Your task to perform on an android device: Clear the cart on newegg. Add "alienware area 51" to the cart on newegg, then select checkout. Image 0: 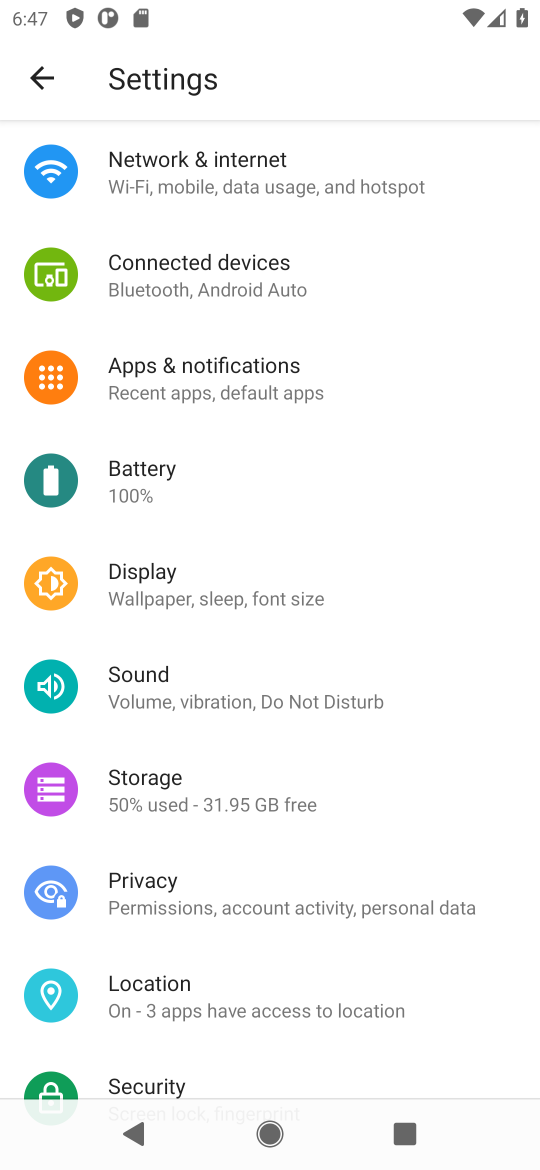
Step 0: press home button
Your task to perform on an android device: Clear the cart on newegg. Add "alienware area 51" to the cart on newegg, then select checkout. Image 1: 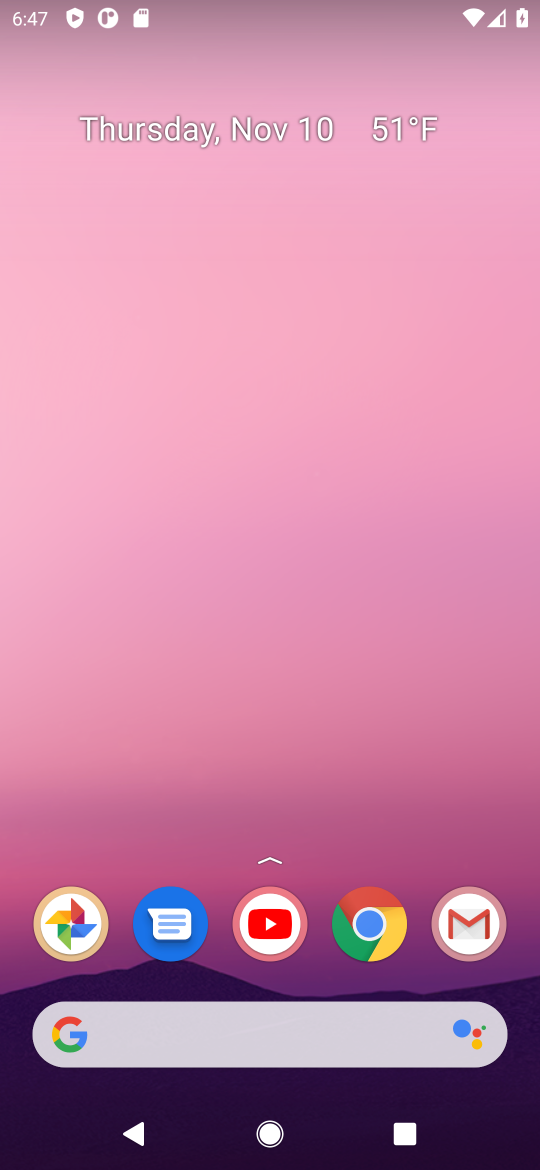
Step 1: click (370, 927)
Your task to perform on an android device: Clear the cart on newegg. Add "alienware area 51" to the cart on newegg, then select checkout. Image 2: 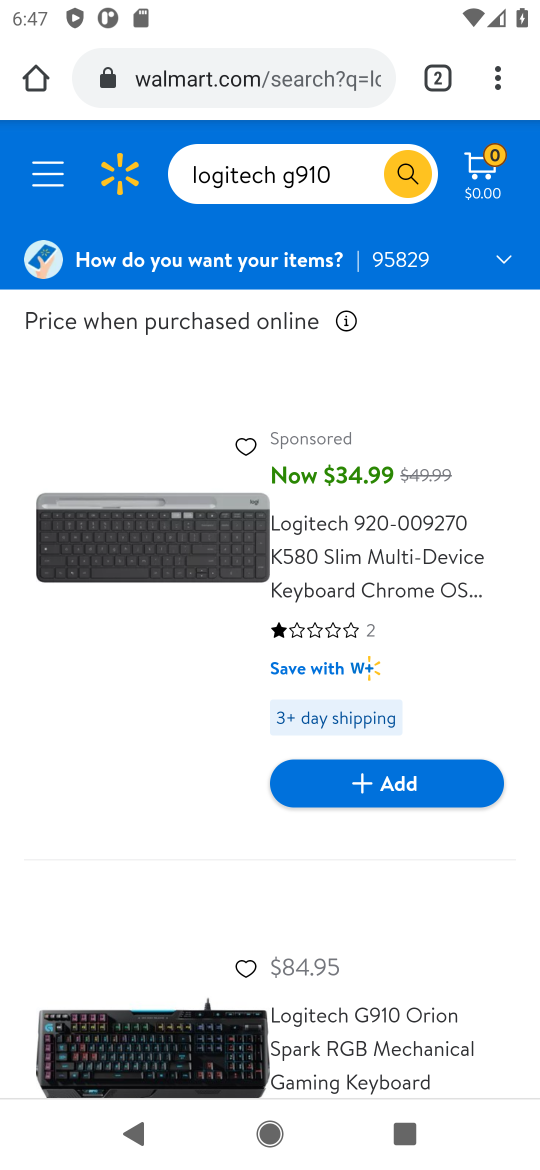
Step 2: click (221, 81)
Your task to perform on an android device: Clear the cart on newegg. Add "alienware area 51" to the cart on newegg, then select checkout. Image 3: 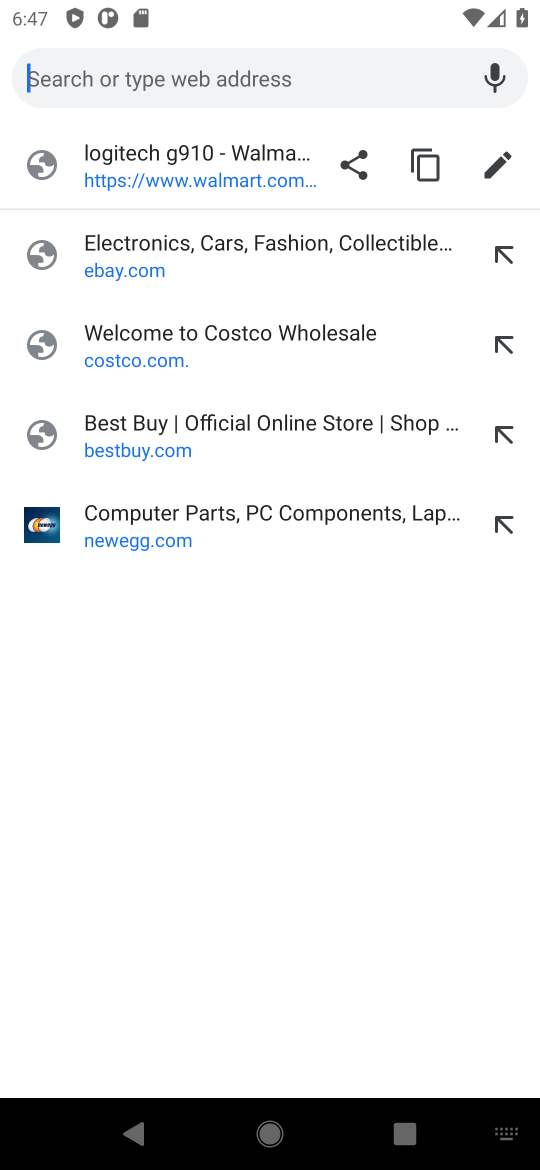
Step 3: click (156, 535)
Your task to perform on an android device: Clear the cart on newegg. Add "alienware area 51" to the cart on newegg, then select checkout. Image 4: 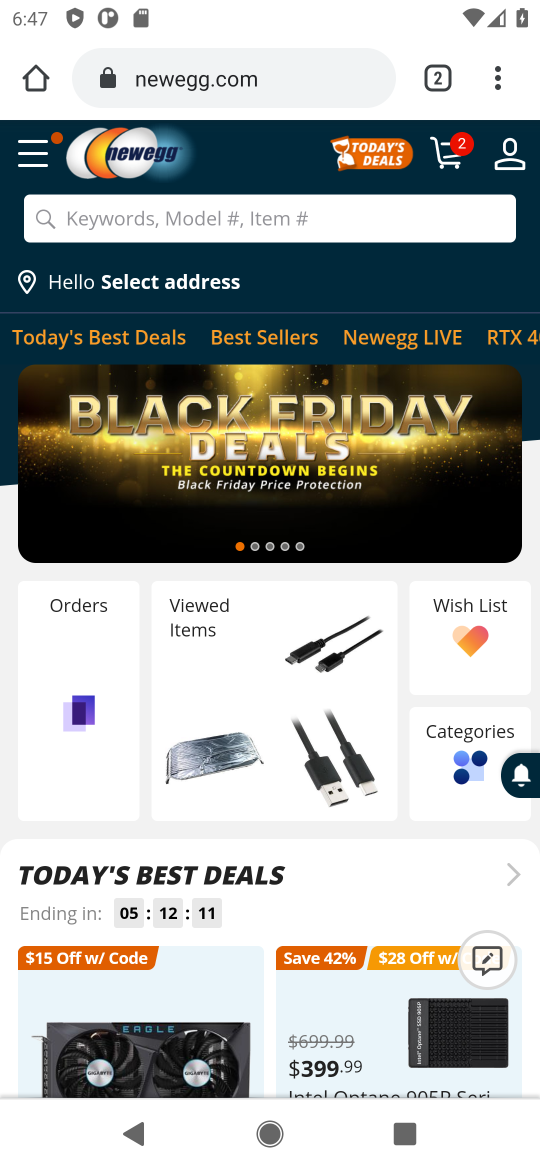
Step 4: click (461, 152)
Your task to perform on an android device: Clear the cart on newegg. Add "alienware area 51" to the cart on newegg, then select checkout. Image 5: 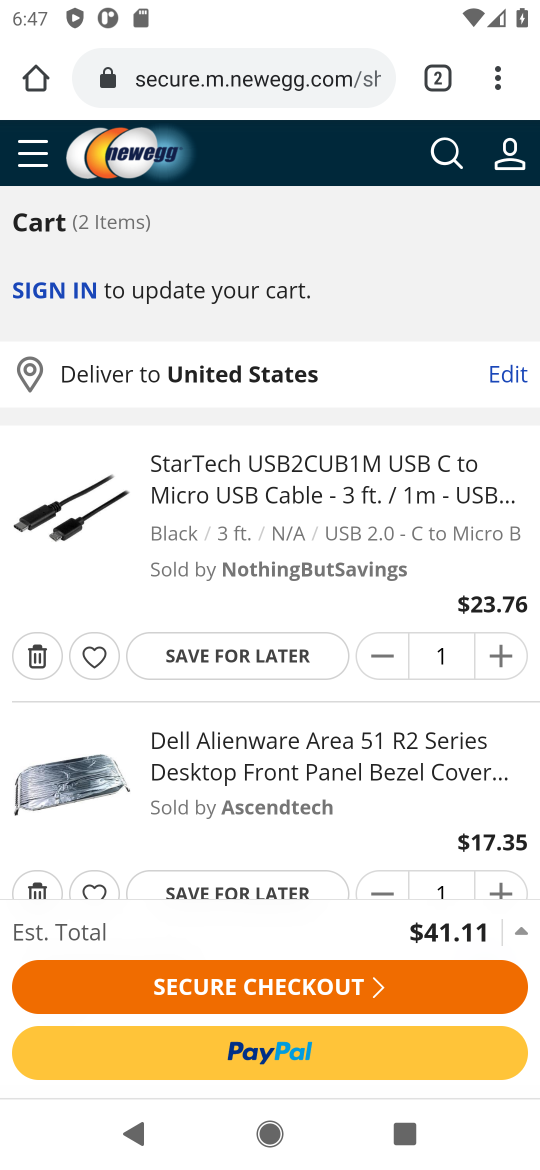
Step 5: click (35, 656)
Your task to perform on an android device: Clear the cart on newegg. Add "alienware area 51" to the cart on newegg, then select checkout. Image 6: 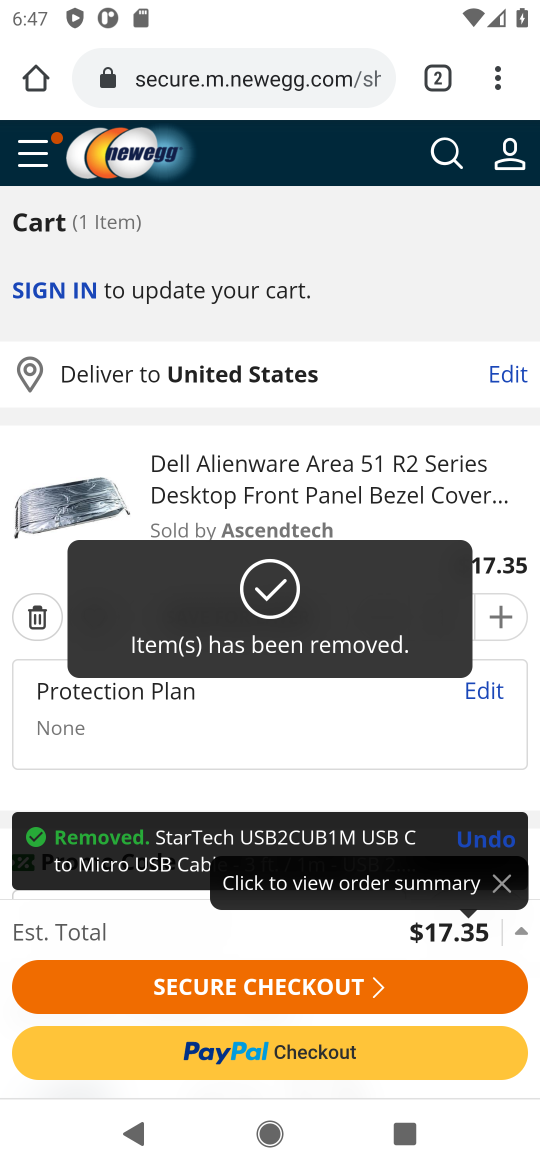
Step 6: click (32, 629)
Your task to perform on an android device: Clear the cart on newegg. Add "alienware area 51" to the cart on newegg, then select checkout. Image 7: 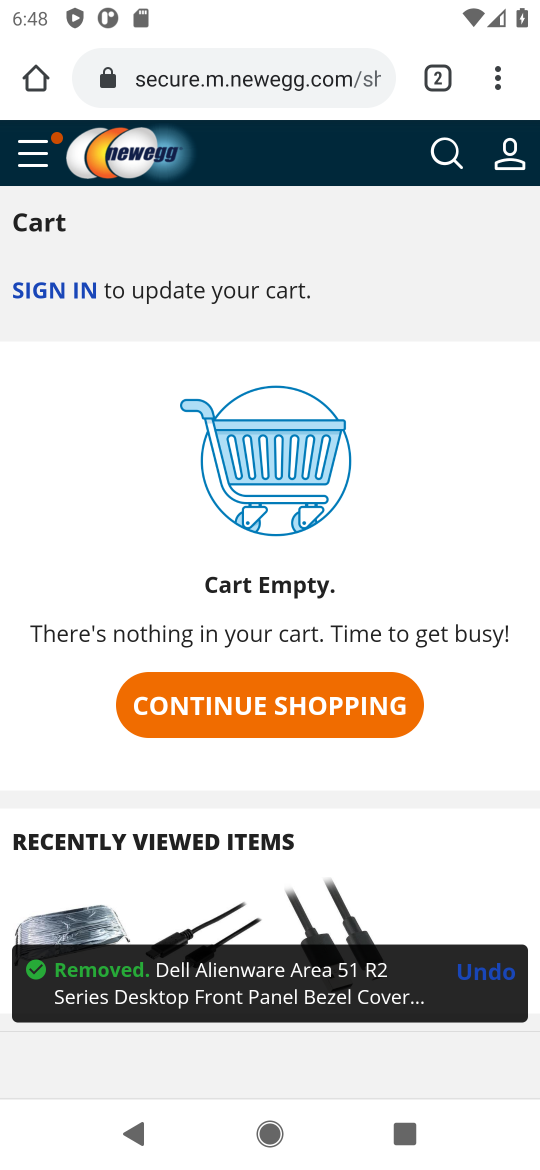
Step 7: click (248, 712)
Your task to perform on an android device: Clear the cart on newegg. Add "alienware area 51" to the cart on newegg, then select checkout. Image 8: 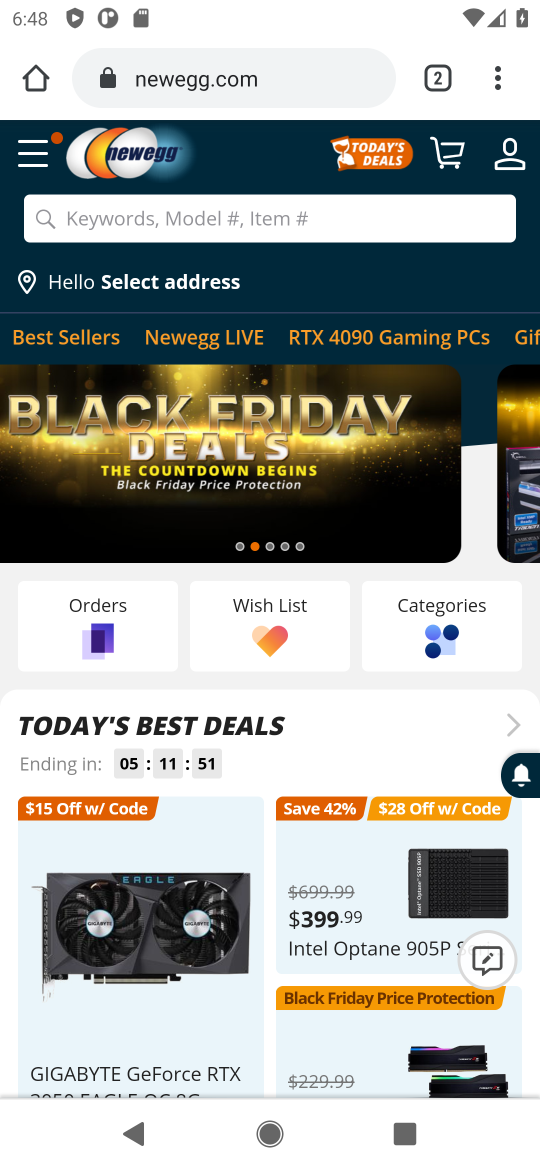
Step 8: click (170, 214)
Your task to perform on an android device: Clear the cart on newegg. Add "alienware area 51" to the cart on newegg, then select checkout. Image 9: 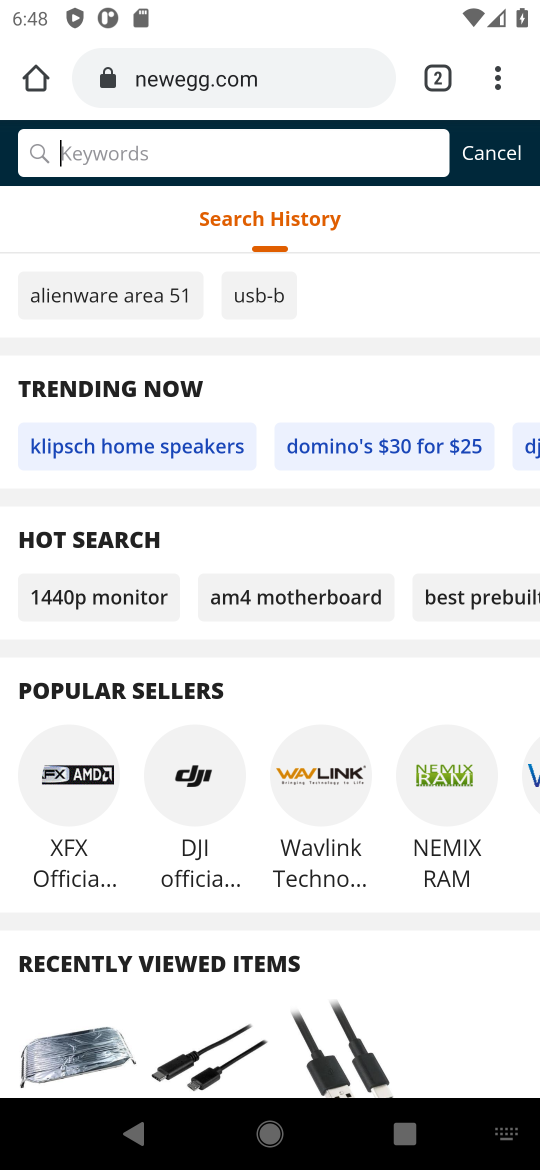
Step 9: type "alienware area 51"
Your task to perform on an android device: Clear the cart on newegg. Add "alienware area 51" to the cart on newegg, then select checkout. Image 10: 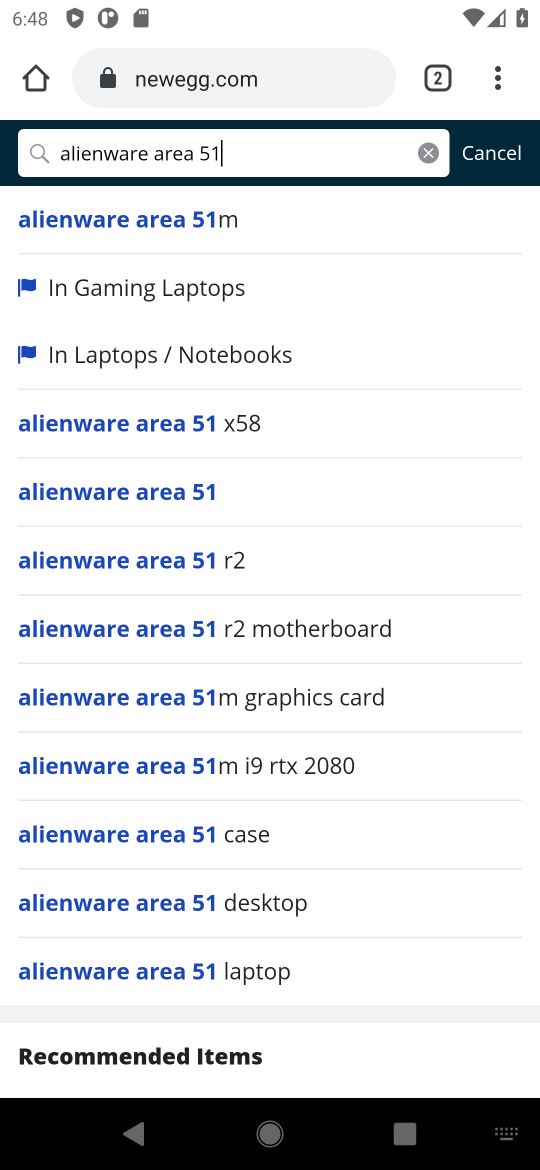
Step 10: click (142, 493)
Your task to perform on an android device: Clear the cart on newegg. Add "alienware area 51" to the cart on newegg, then select checkout. Image 11: 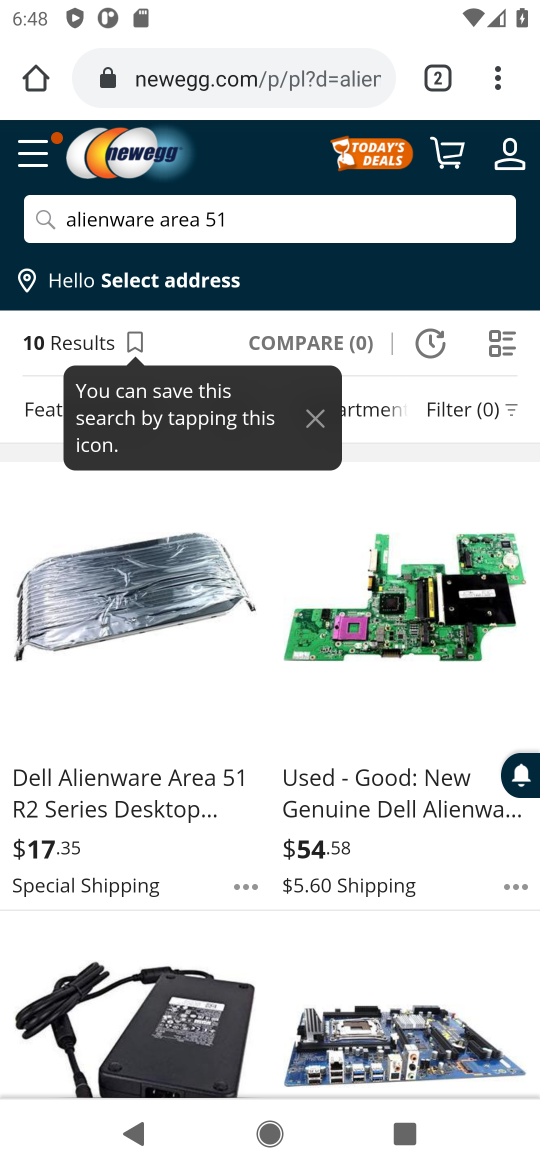
Step 11: click (79, 645)
Your task to perform on an android device: Clear the cart on newegg. Add "alienware area 51" to the cart on newegg, then select checkout. Image 12: 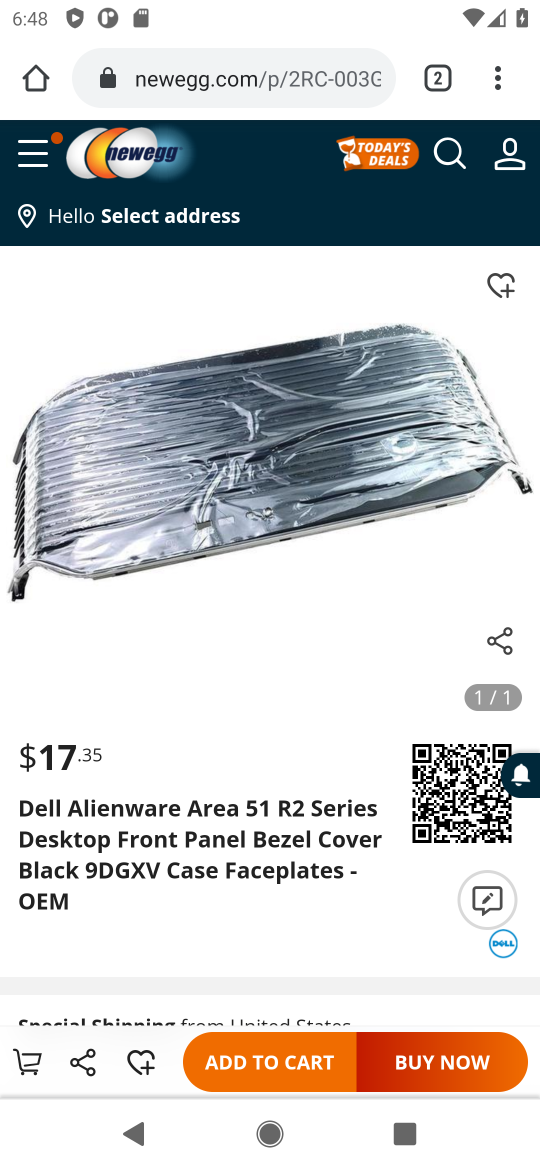
Step 12: click (261, 1048)
Your task to perform on an android device: Clear the cart on newegg. Add "alienware area 51" to the cart on newegg, then select checkout. Image 13: 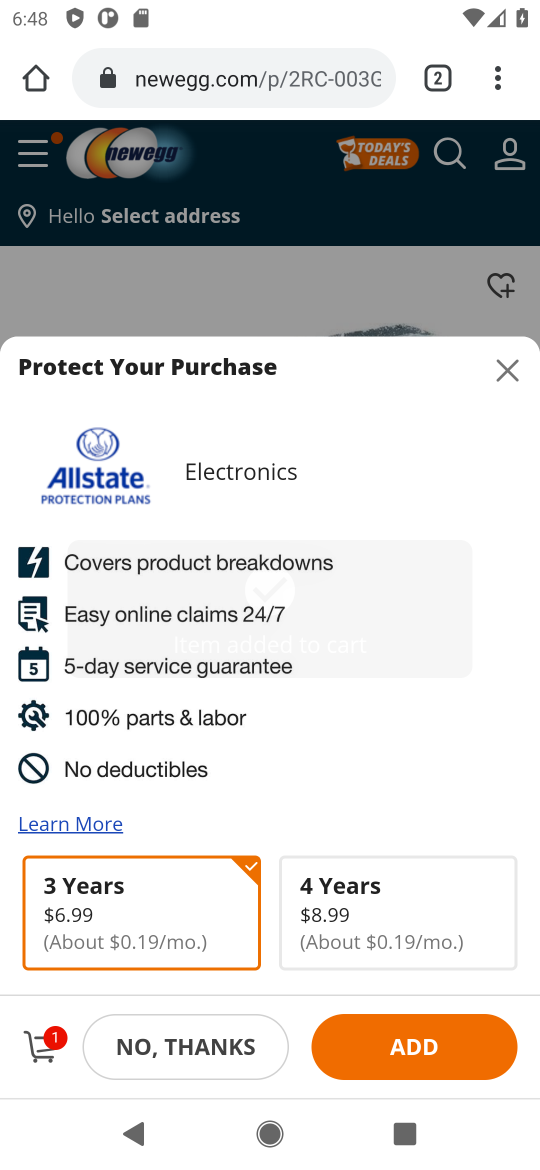
Step 13: click (41, 1043)
Your task to perform on an android device: Clear the cart on newegg. Add "alienware area 51" to the cart on newegg, then select checkout. Image 14: 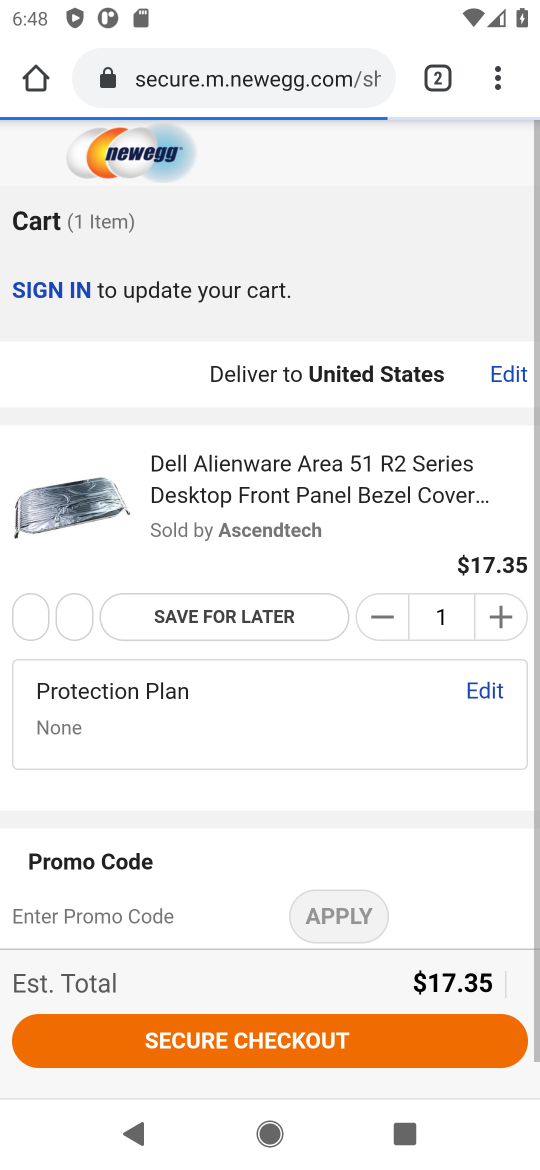
Step 14: click (173, 1042)
Your task to perform on an android device: Clear the cart on newegg. Add "alienware area 51" to the cart on newegg, then select checkout. Image 15: 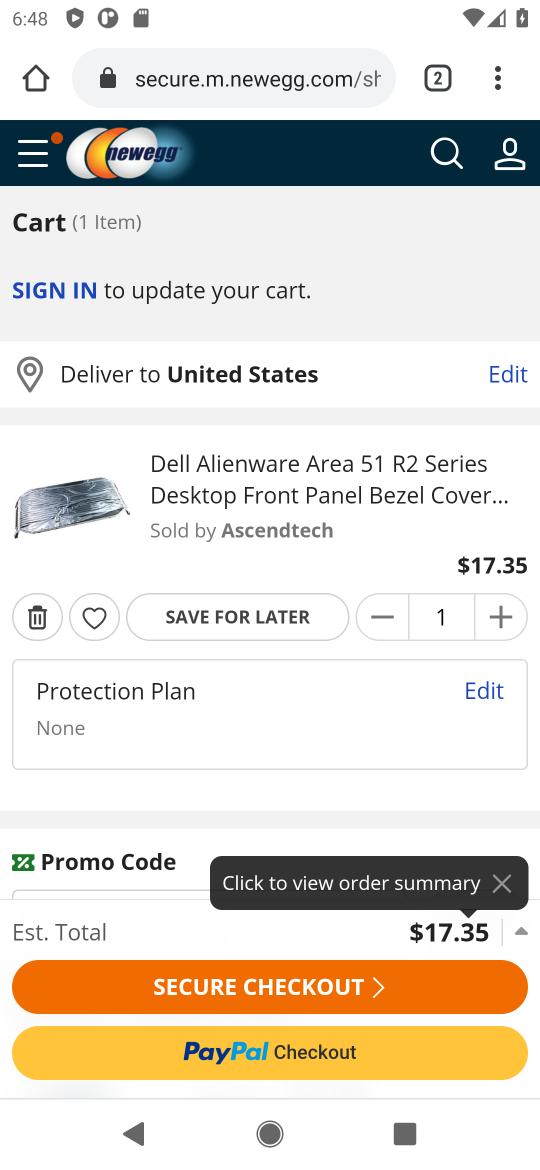
Step 15: click (276, 987)
Your task to perform on an android device: Clear the cart on newegg. Add "alienware area 51" to the cart on newegg, then select checkout. Image 16: 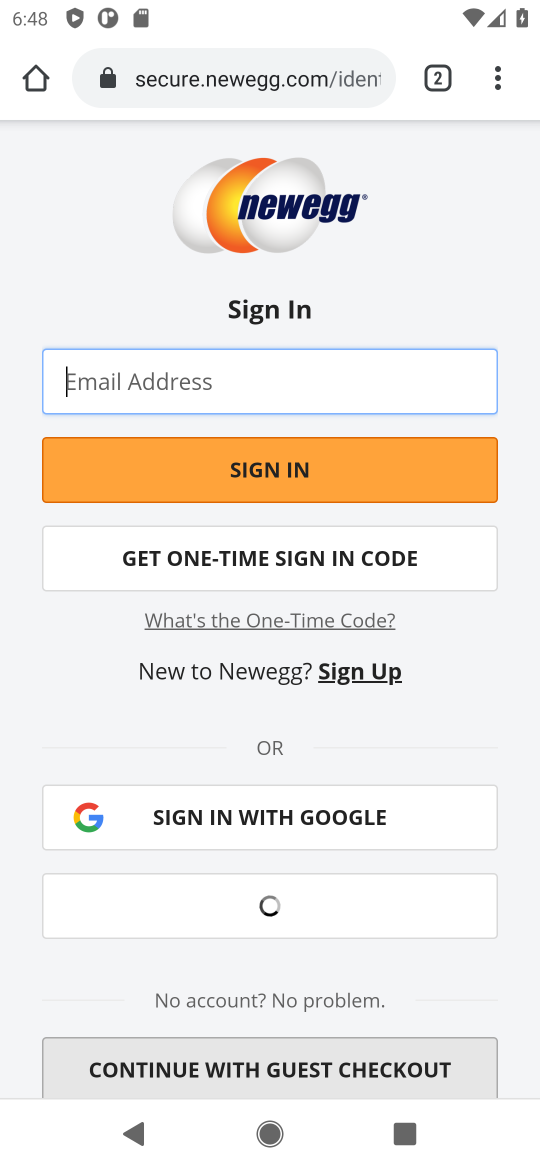
Step 16: task complete